Your task to perform on an android device: set the timer Image 0: 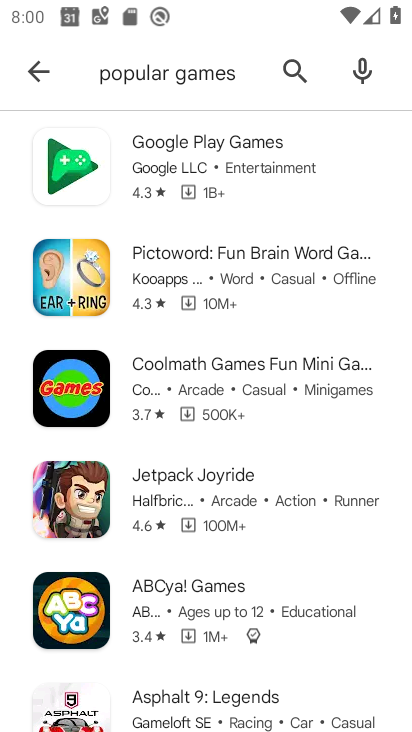
Step 0: press home button
Your task to perform on an android device: set the timer Image 1: 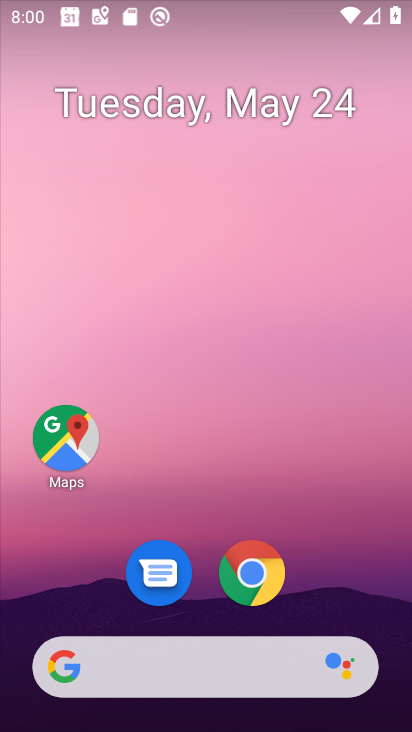
Step 1: drag from (351, 554) to (326, 14)
Your task to perform on an android device: set the timer Image 2: 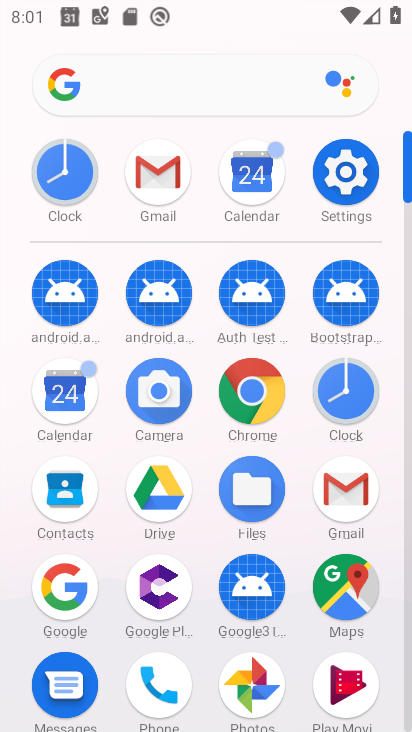
Step 2: click (62, 158)
Your task to perform on an android device: set the timer Image 3: 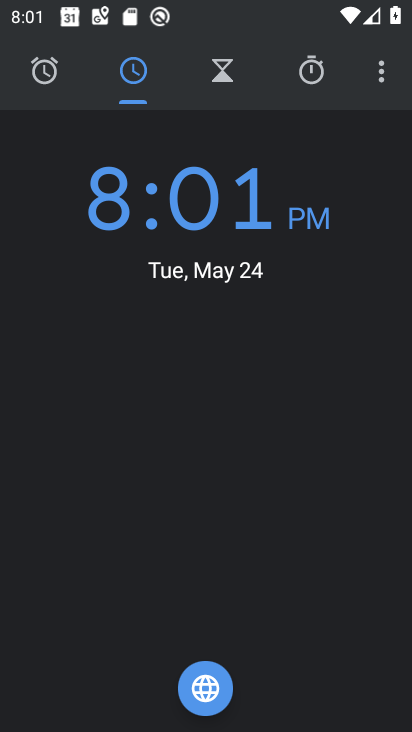
Step 3: click (230, 61)
Your task to perform on an android device: set the timer Image 4: 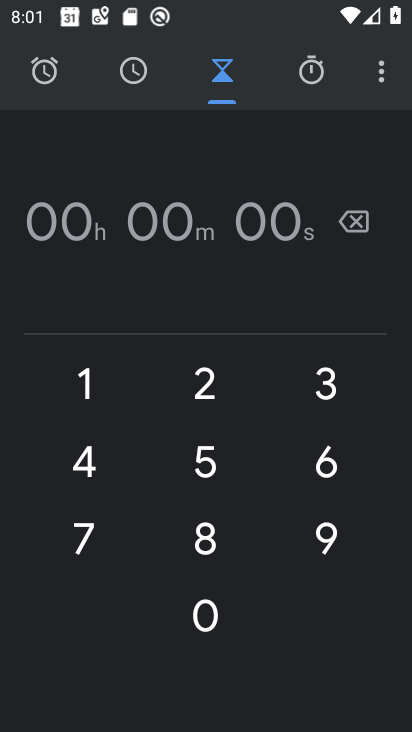
Step 4: click (209, 379)
Your task to perform on an android device: set the timer Image 5: 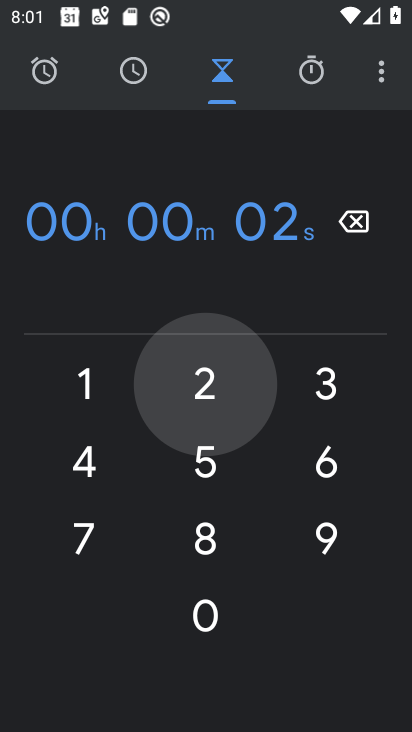
Step 5: click (221, 475)
Your task to perform on an android device: set the timer Image 6: 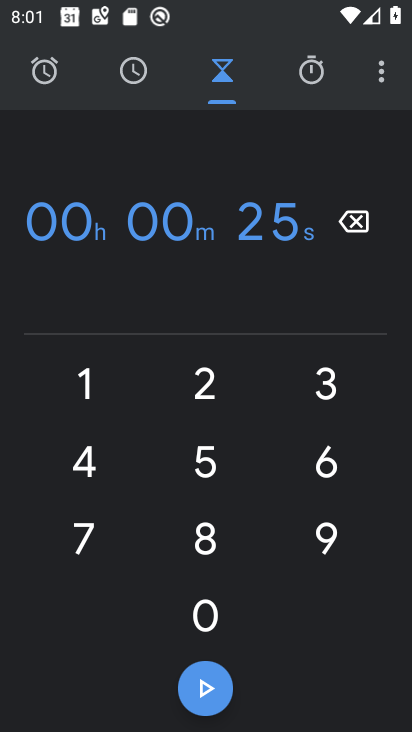
Step 6: drag from (216, 417) to (221, 454)
Your task to perform on an android device: set the timer Image 7: 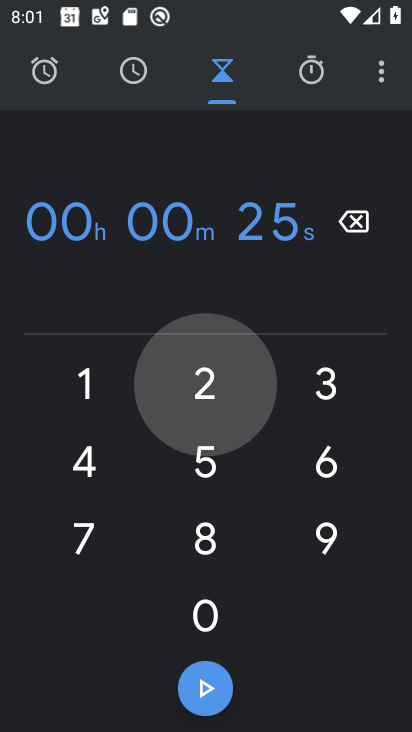
Step 7: click (219, 499)
Your task to perform on an android device: set the timer Image 8: 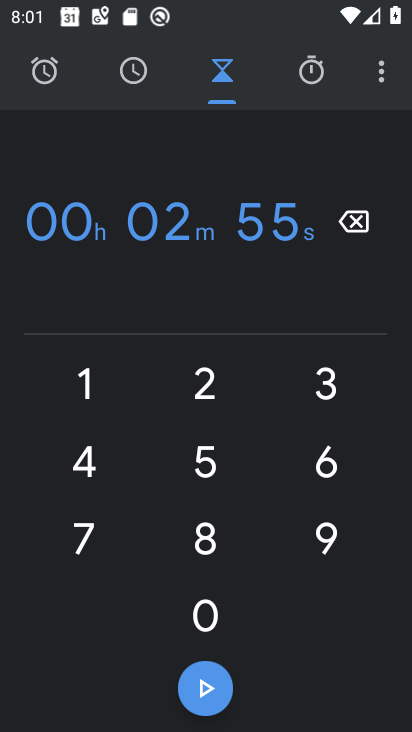
Step 8: click (207, 400)
Your task to perform on an android device: set the timer Image 9: 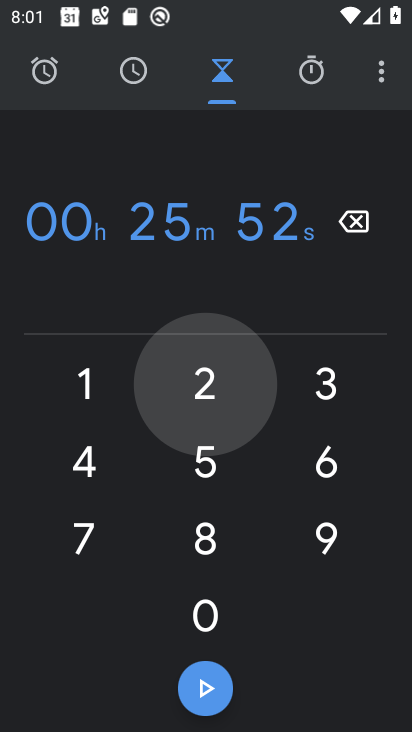
Step 9: click (210, 493)
Your task to perform on an android device: set the timer Image 10: 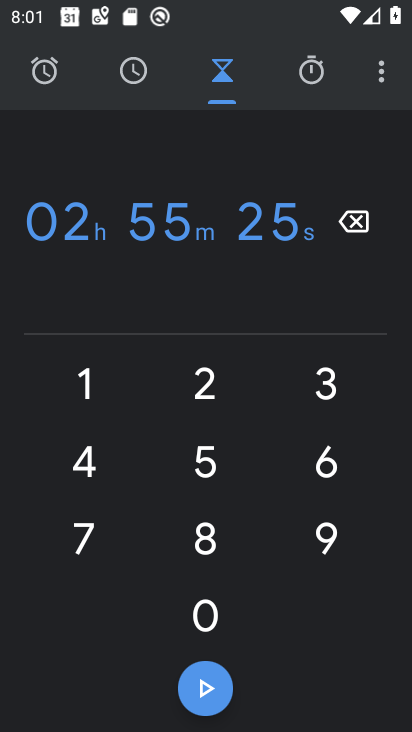
Step 10: click (212, 695)
Your task to perform on an android device: set the timer Image 11: 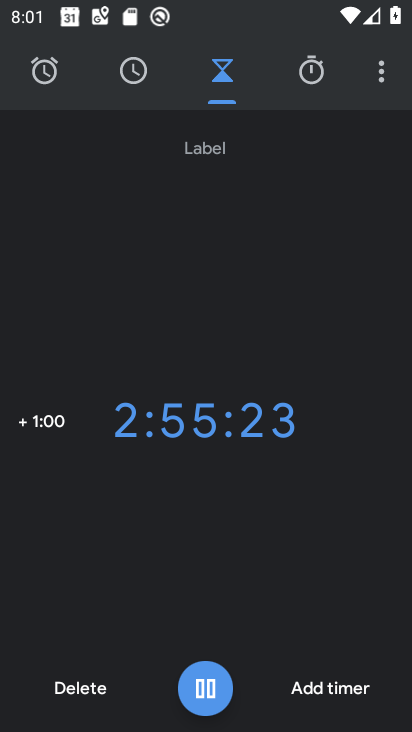
Step 11: task complete